Your task to perform on an android device: check storage Image 0: 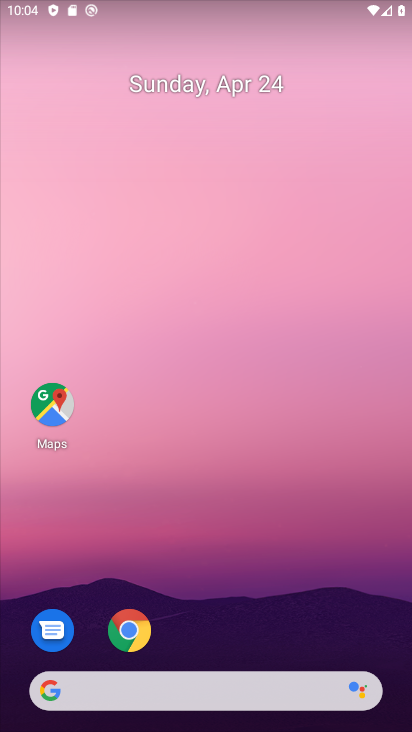
Step 0: drag from (208, 632) to (222, 223)
Your task to perform on an android device: check storage Image 1: 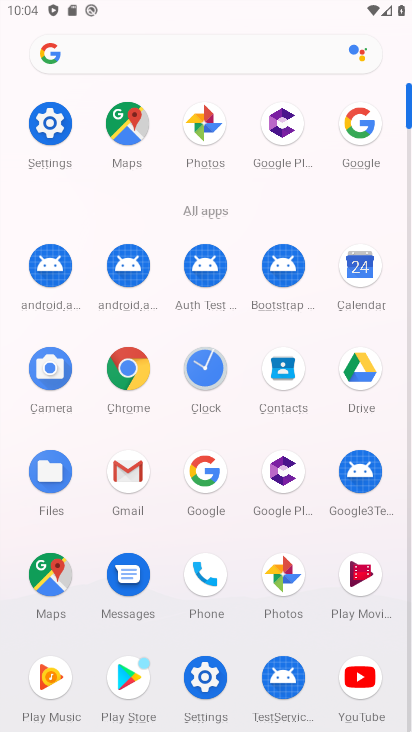
Step 1: click (46, 126)
Your task to perform on an android device: check storage Image 2: 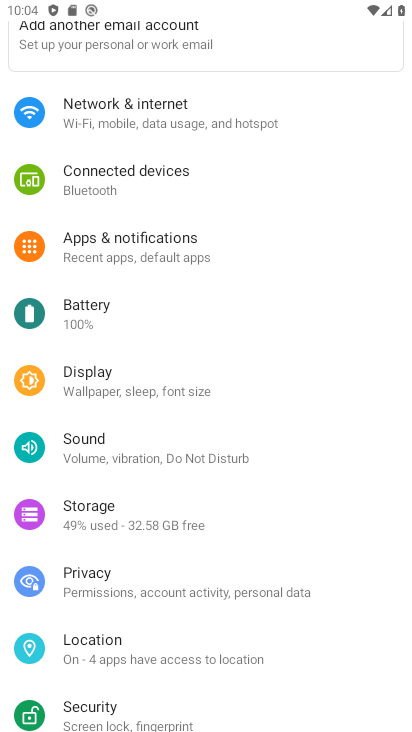
Step 2: drag from (178, 614) to (196, 564)
Your task to perform on an android device: check storage Image 3: 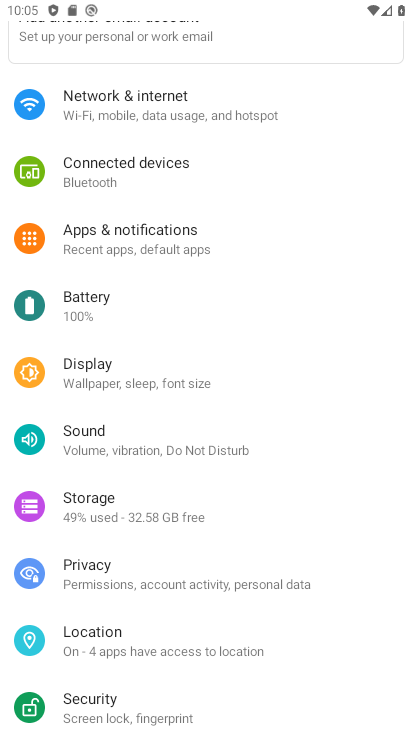
Step 3: click (140, 513)
Your task to perform on an android device: check storage Image 4: 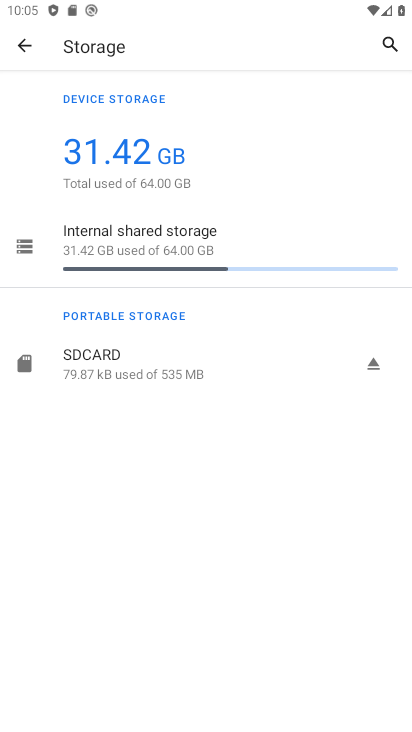
Step 4: task complete